Your task to perform on an android device: turn off javascript in the chrome app Image 0: 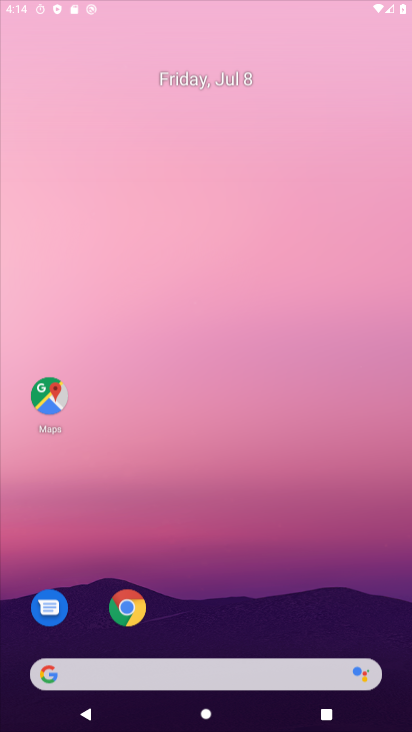
Step 0: press home button
Your task to perform on an android device: turn off javascript in the chrome app Image 1: 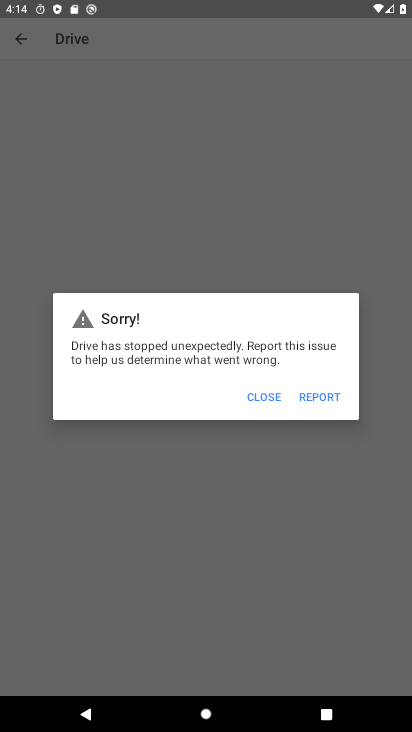
Step 1: press home button
Your task to perform on an android device: turn off javascript in the chrome app Image 2: 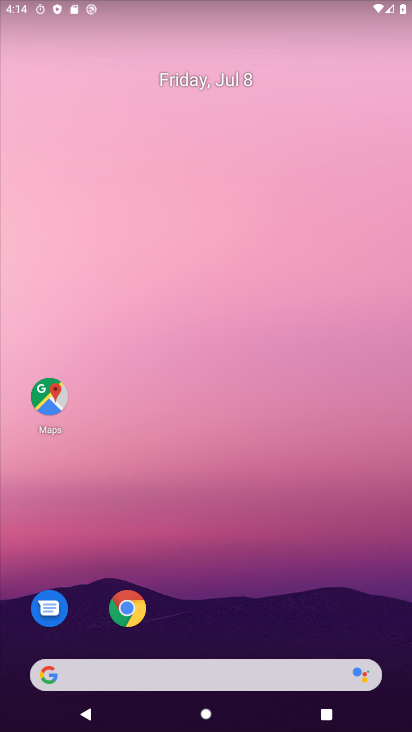
Step 2: drag from (228, 568) to (250, 1)
Your task to perform on an android device: turn off javascript in the chrome app Image 3: 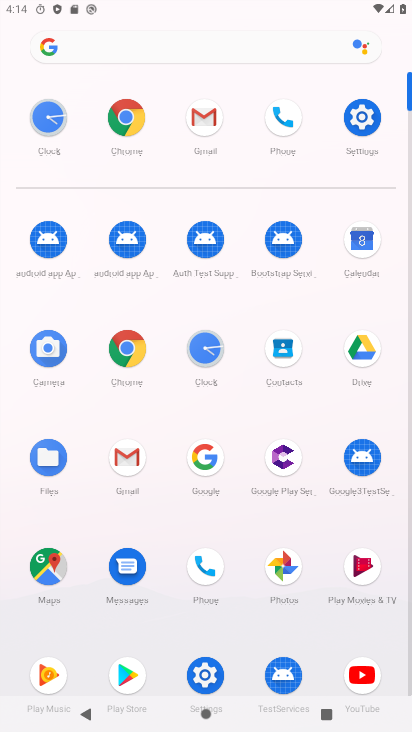
Step 3: click (134, 123)
Your task to perform on an android device: turn off javascript in the chrome app Image 4: 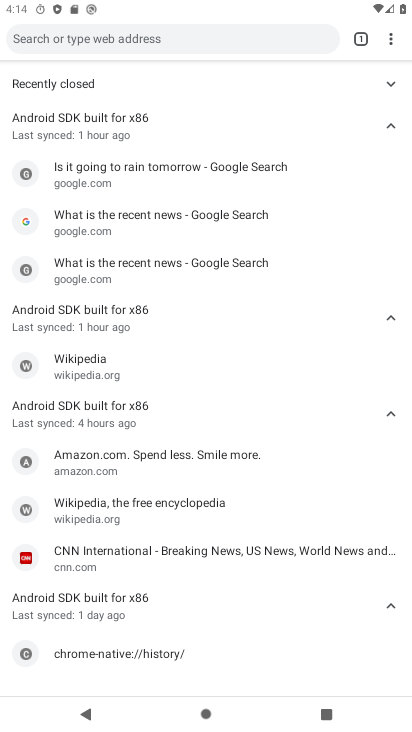
Step 4: drag from (393, 38) to (244, 324)
Your task to perform on an android device: turn off javascript in the chrome app Image 5: 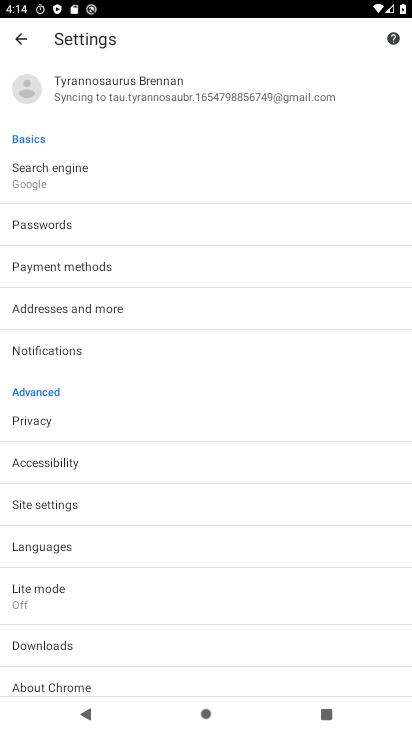
Step 5: click (38, 501)
Your task to perform on an android device: turn off javascript in the chrome app Image 6: 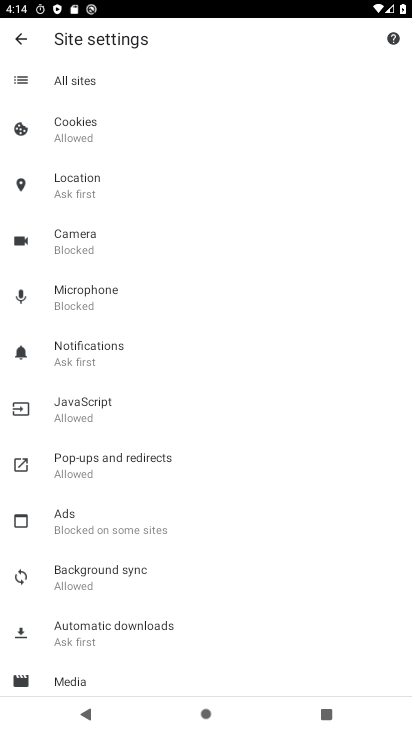
Step 6: click (61, 403)
Your task to perform on an android device: turn off javascript in the chrome app Image 7: 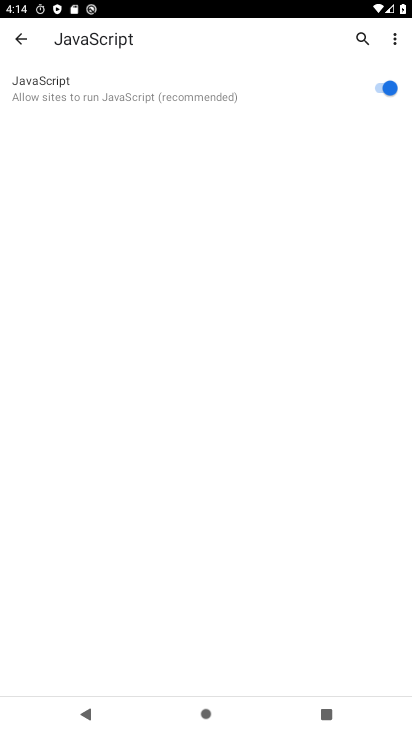
Step 7: click (379, 84)
Your task to perform on an android device: turn off javascript in the chrome app Image 8: 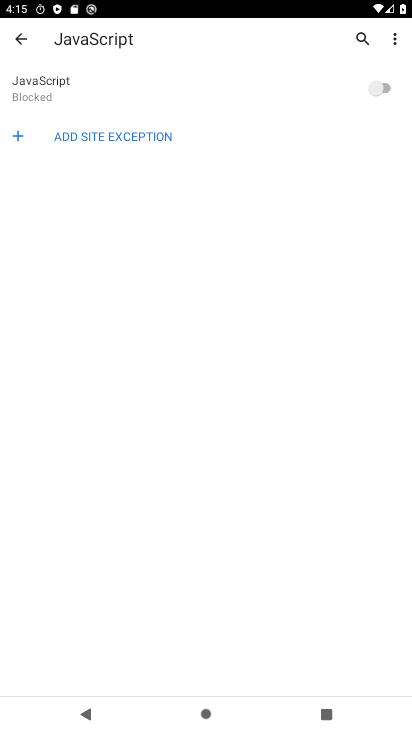
Step 8: task complete